Your task to perform on an android device: Is it going to rain today? Image 0: 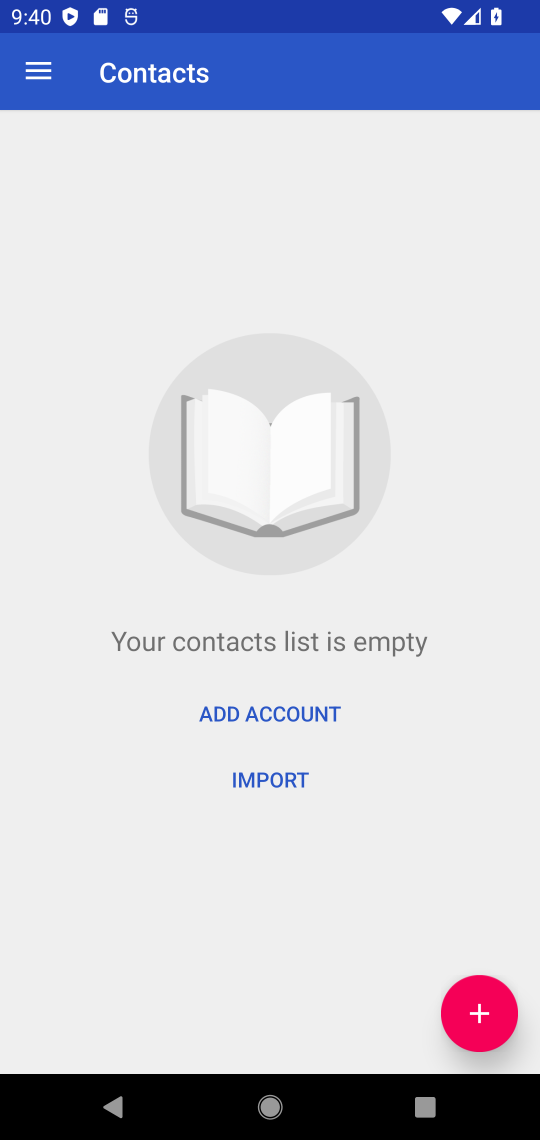
Step 0: press home button
Your task to perform on an android device: Is it going to rain today? Image 1: 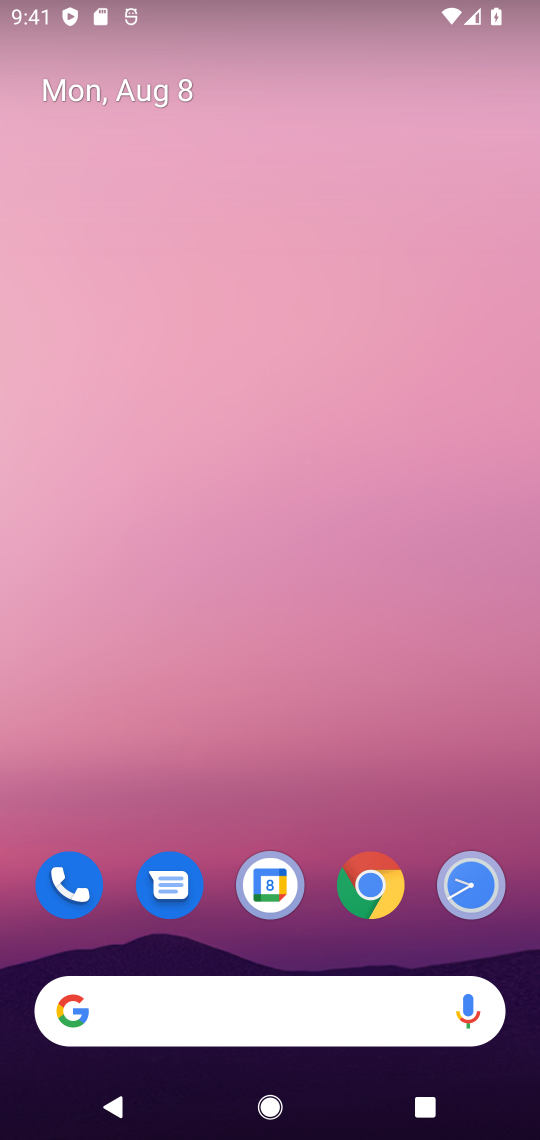
Step 1: click (301, 1013)
Your task to perform on an android device: Is it going to rain today? Image 2: 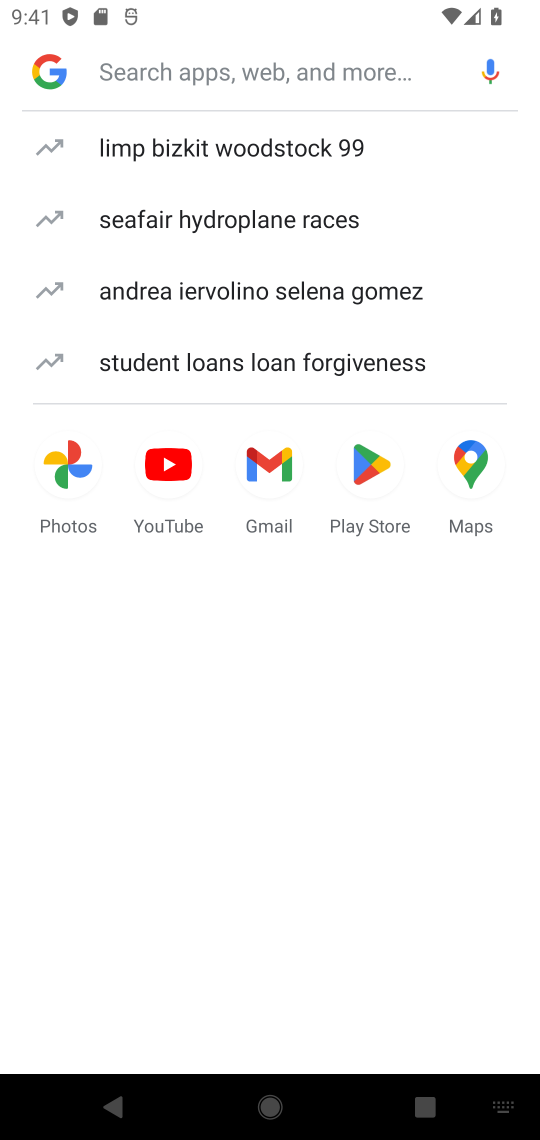
Step 2: type "Is it going to rain today?"
Your task to perform on an android device: Is it going to rain today? Image 3: 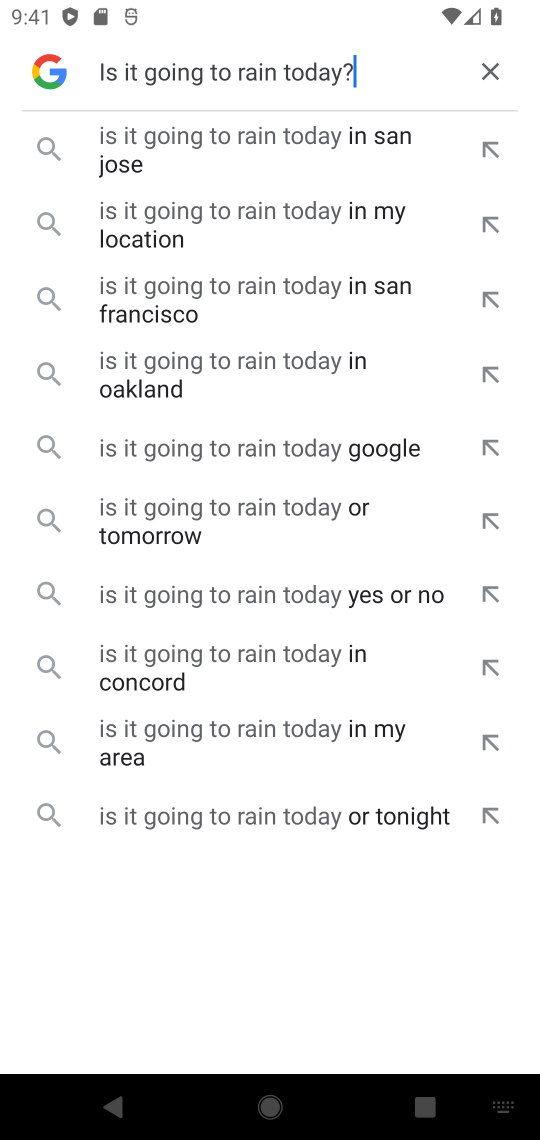
Step 3: press enter
Your task to perform on an android device: Is it going to rain today? Image 4: 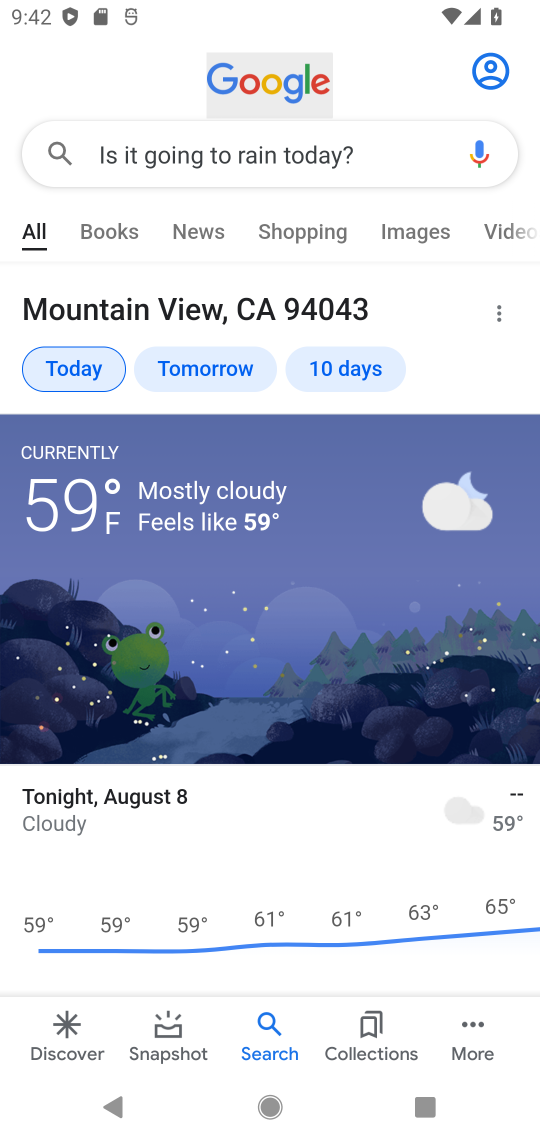
Step 4: task complete